Your task to perform on an android device: toggle show notifications on the lock screen Image 0: 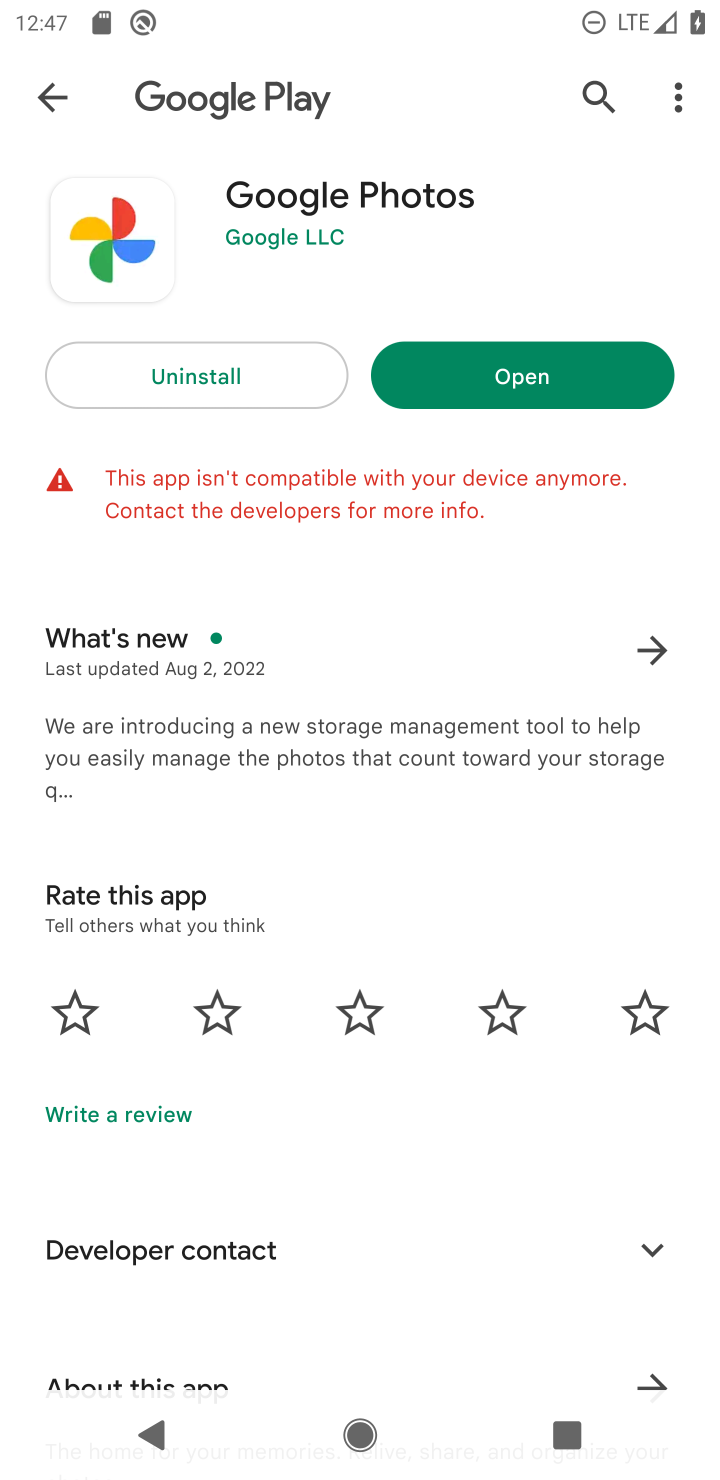
Step 0: press home button
Your task to perform on an android device: toggle show notifications on the lock screen Image 1: 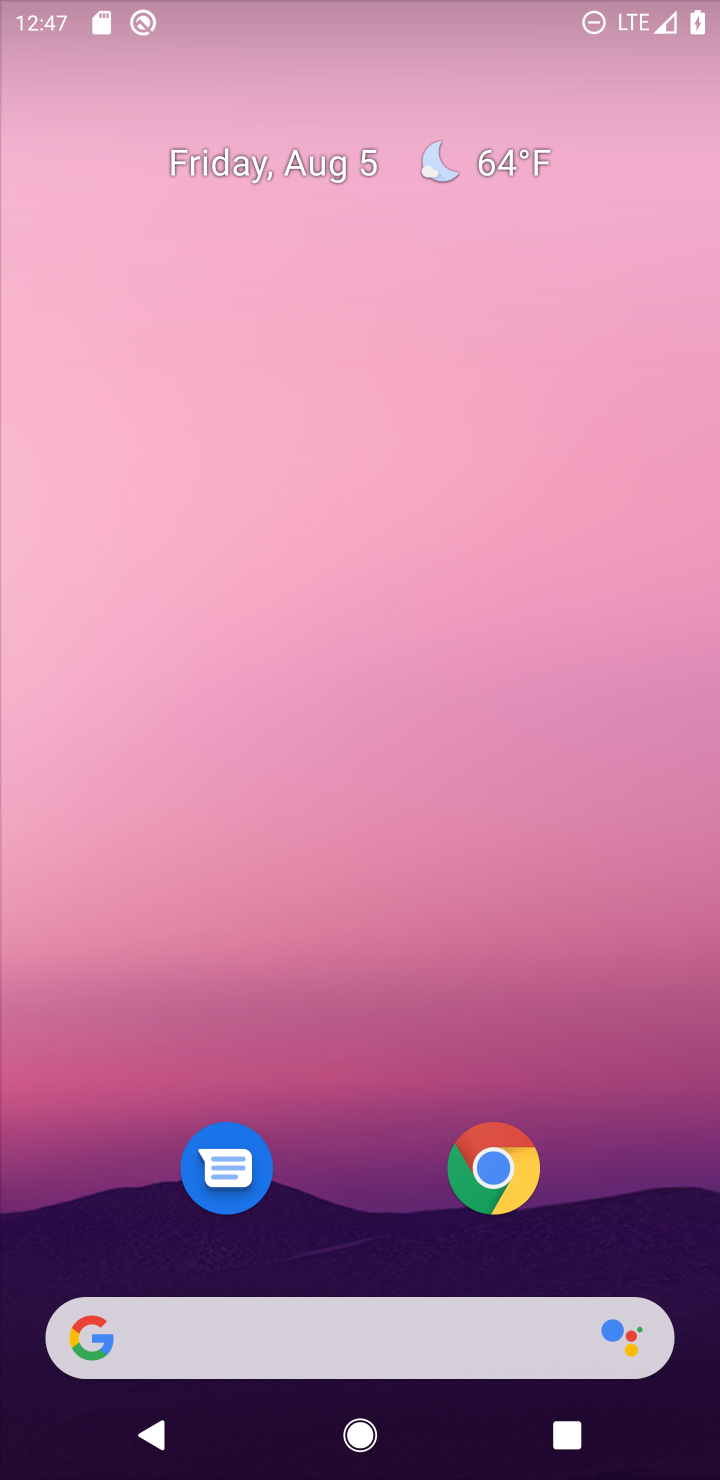
Step 1: drag from (642, 1219) to (236, 27)
Your task to perform on an android device: toggle show notifications on the lock screen Image 2: 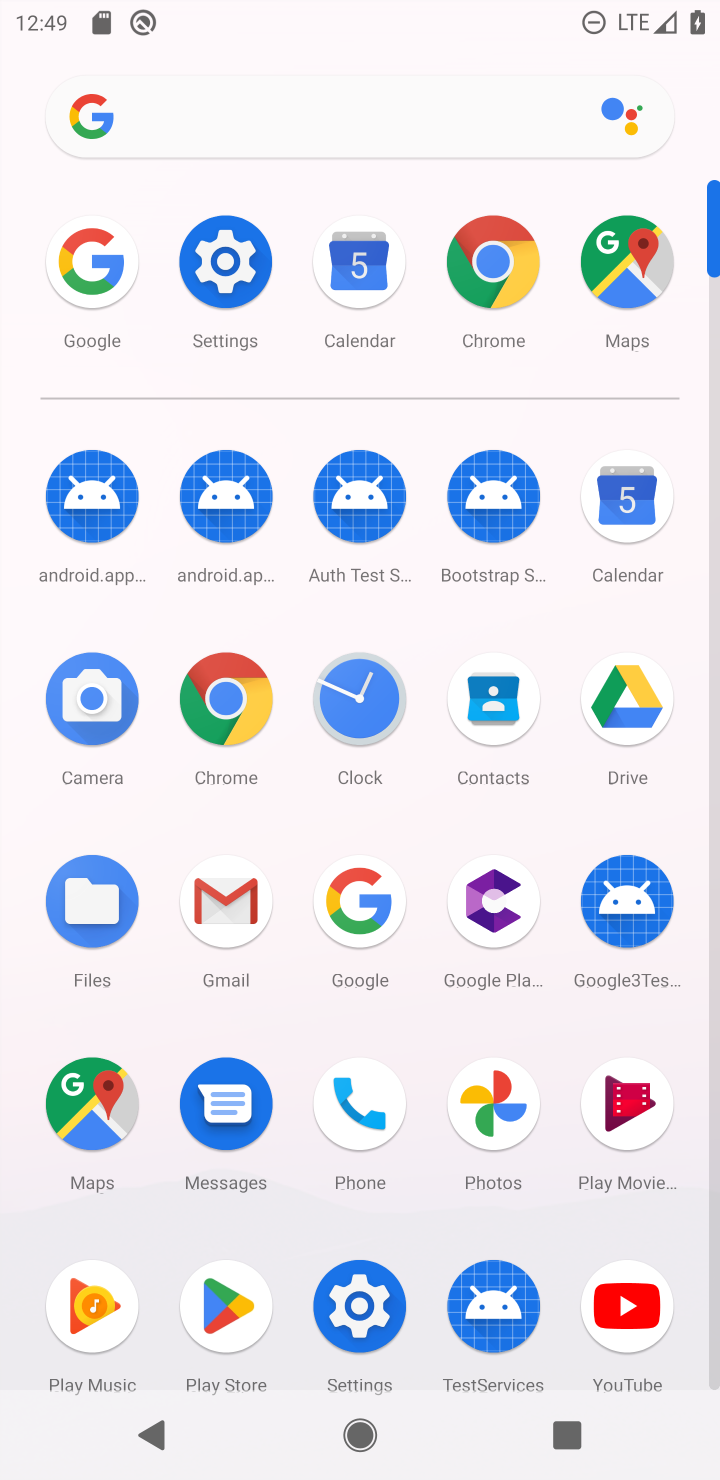
Step 2: click (344, 1314)
Your task to perform on an android device: toggle show notifications on the lock screen Image 3: 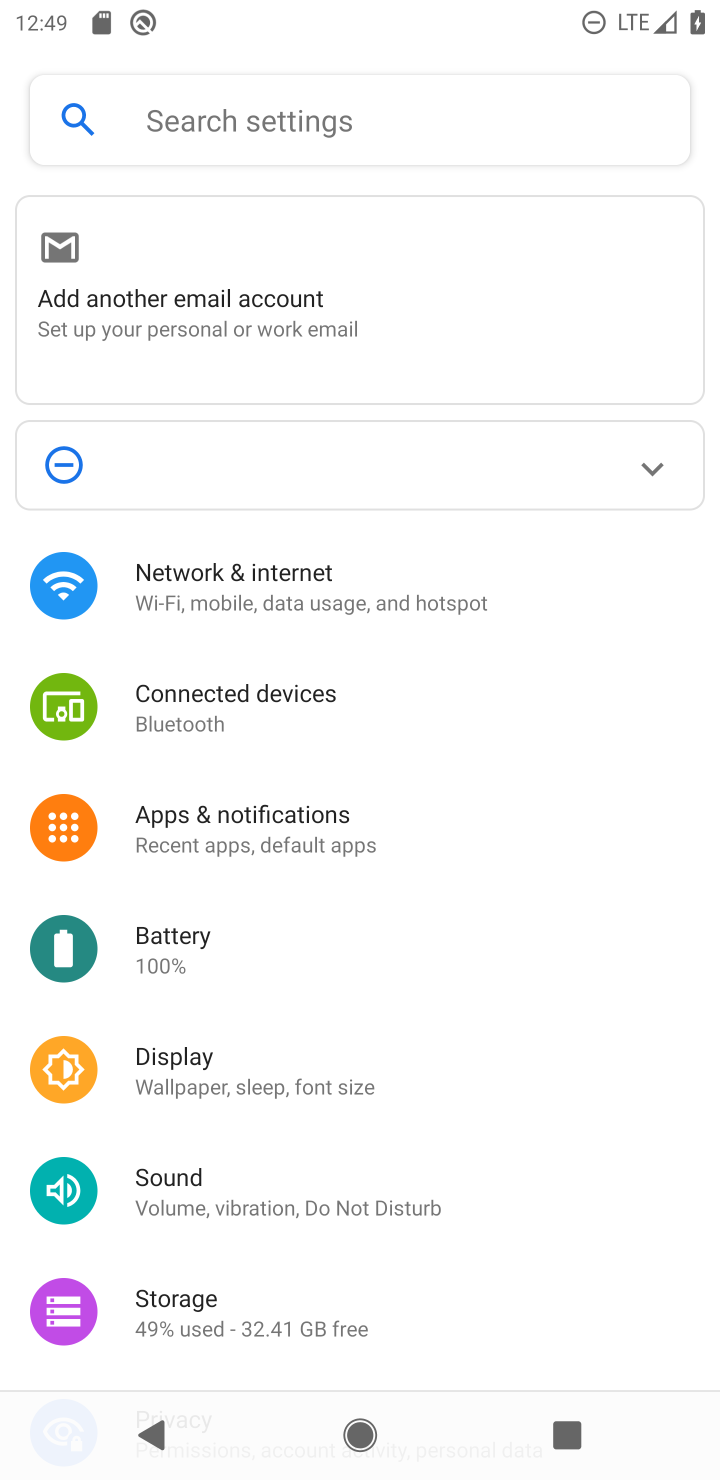
Step 3: click (222, 828)
Your task to perform on an android device: toggle show notifications on the lock screen Image 4: 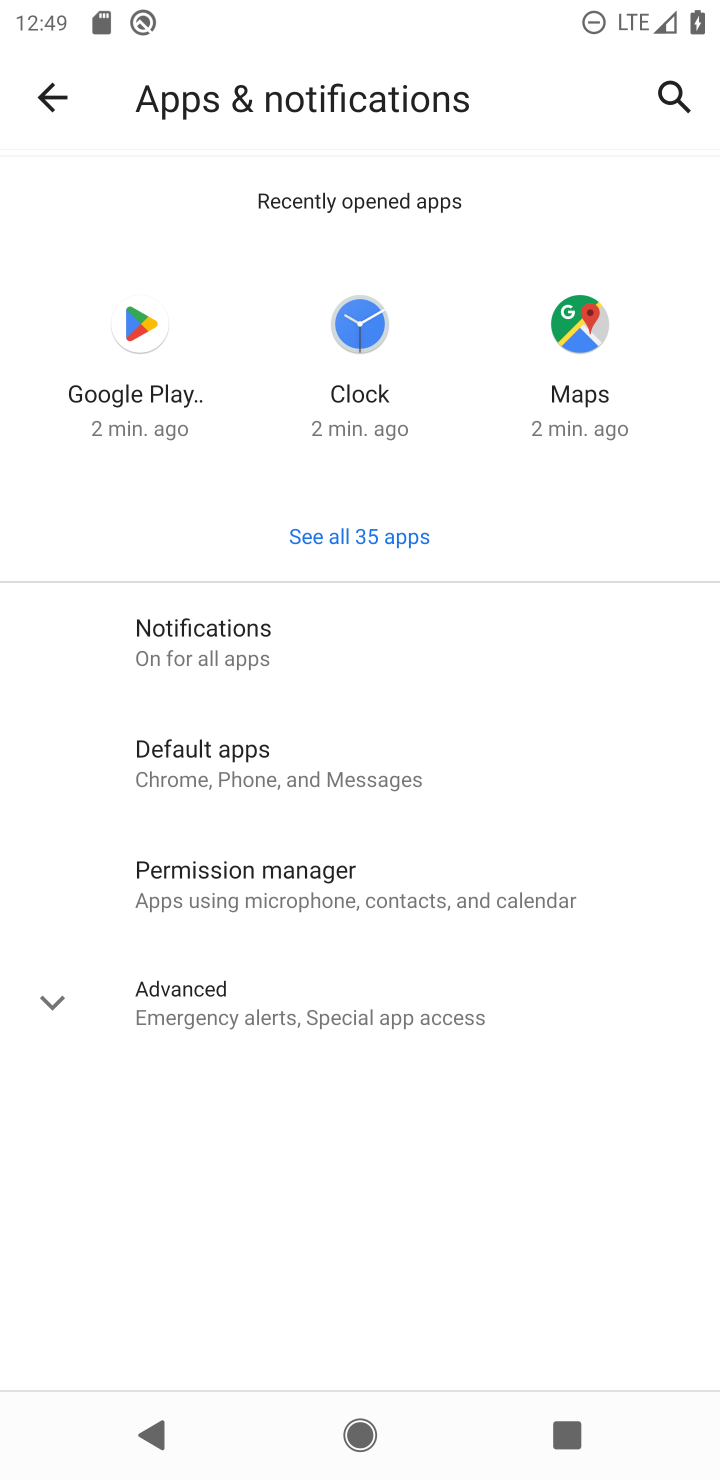
Step 4: click (113, 994)
Your task to perform on an android device: toggle show notifications on the lock screen Image 5: 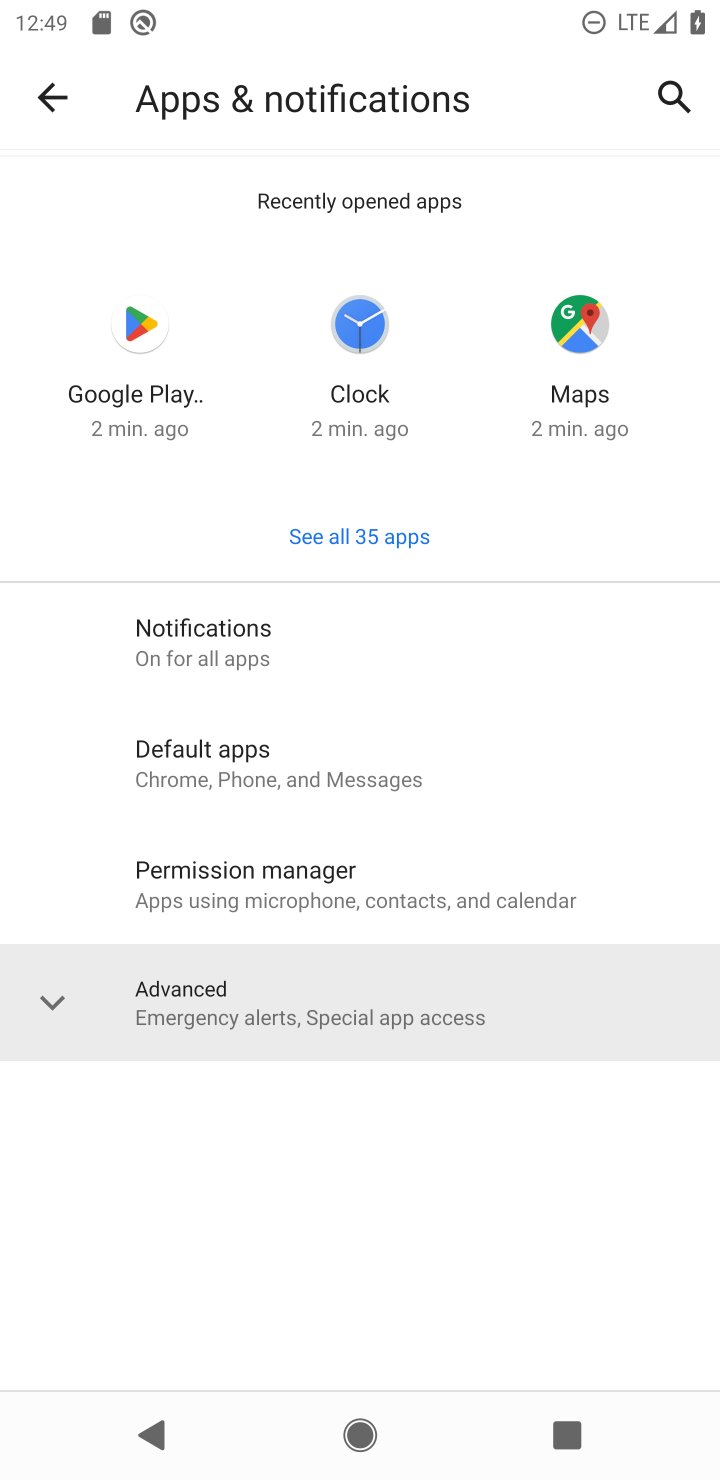
Step 5: click (234, 632)
Your task to perform on an android device: toggle show notifications on the lock screen Image 6: 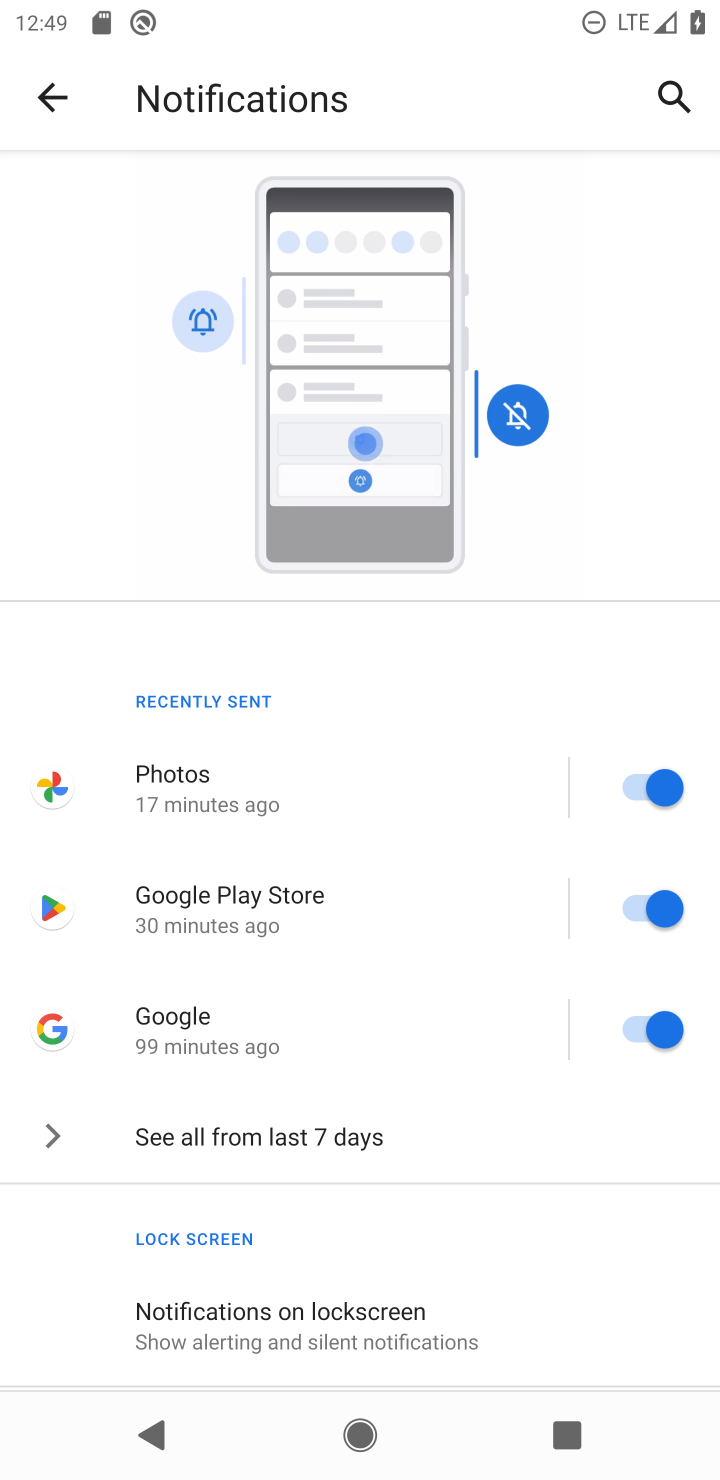
Step 6: drag from (233, 1303) to (298, 629)
Your task to perform on an android device: toggle show notifications on the lock screen Image 7: 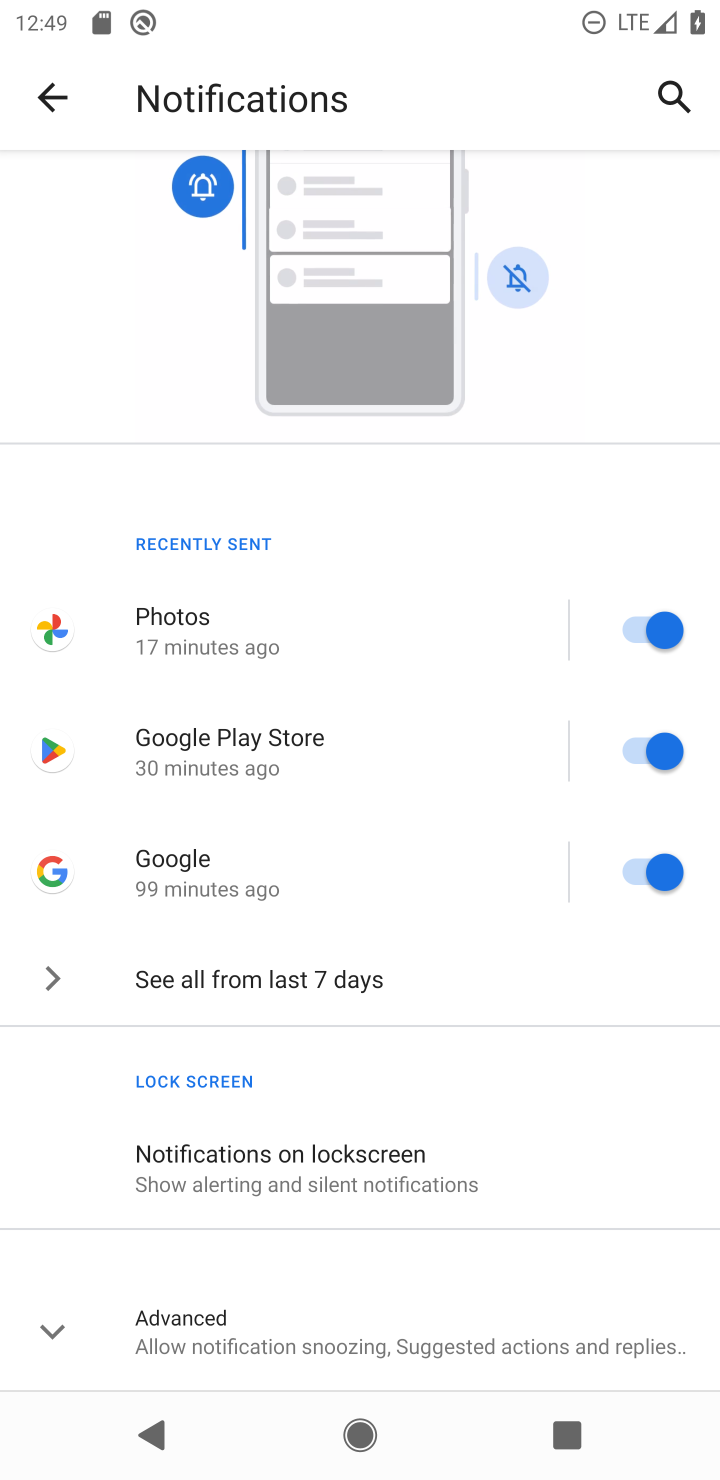
Step 7: click (173, 1196)
Your task to perform on an android device: toggle show notifications on the lock screen Image 8: 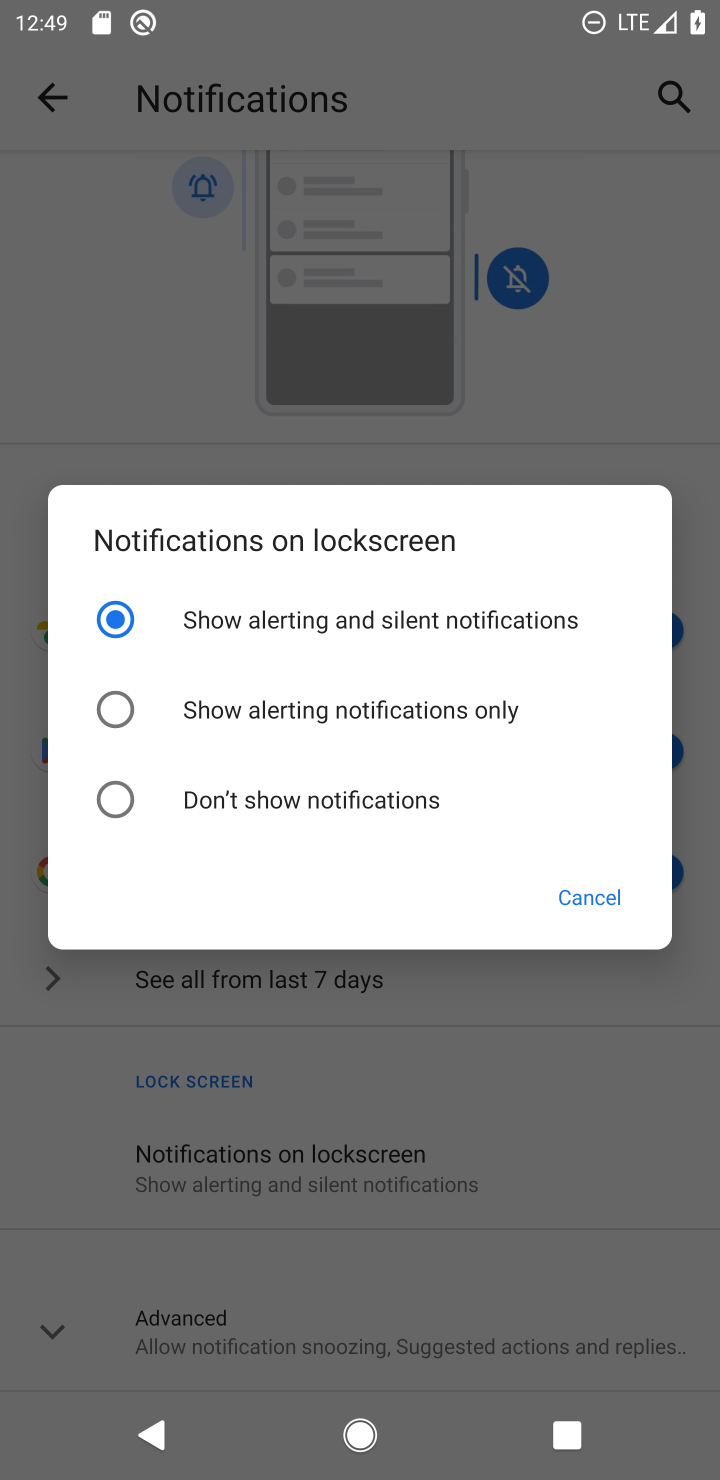
Step 8: click (115, 807)
Your task to perform on an android device: toggle show notifications on the lock screen Image 9: 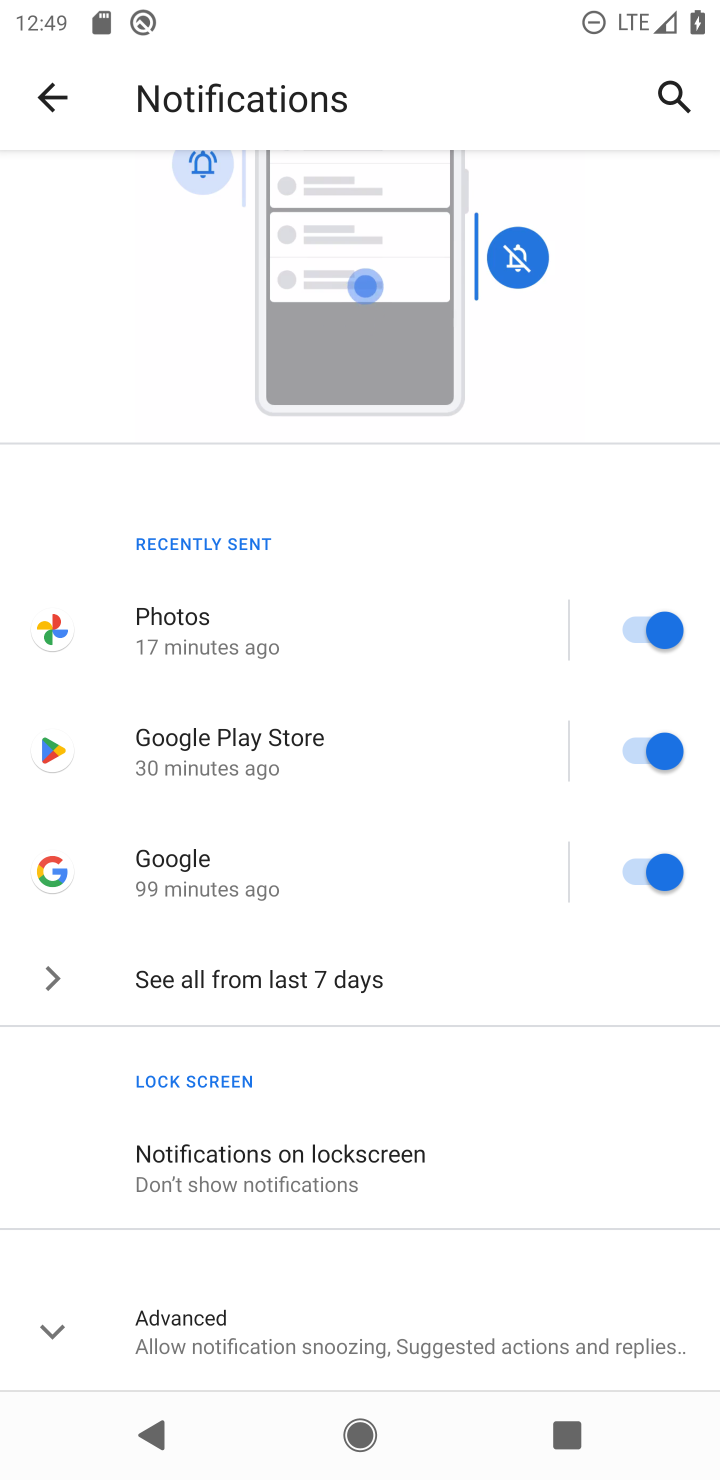
Step 9: task complete